Your task to perform on an android device: Open location settings Image 0: 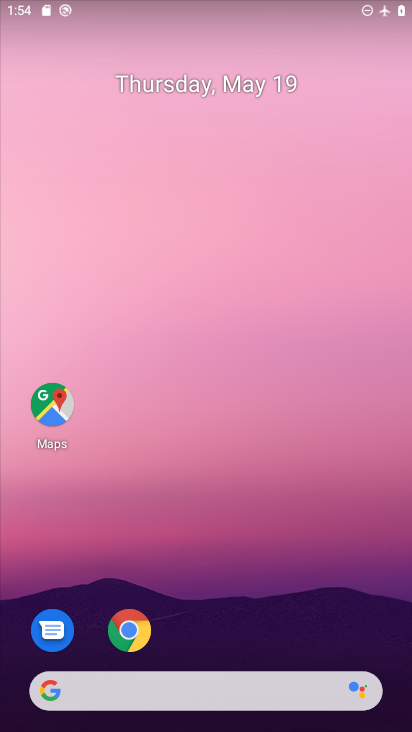
Step 0: drag from (200, 636) to (159, 103)
Your task to perform on an android device: Open location settings Image 1: 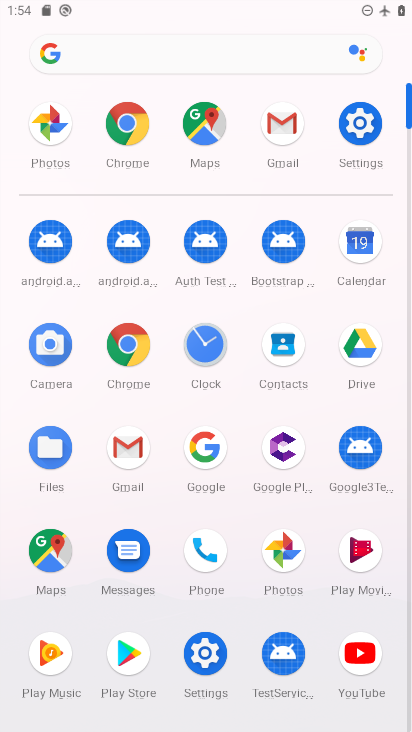
Step 1: click (352, 129)
Your task to perform on an android device: Open location settings Image 2: 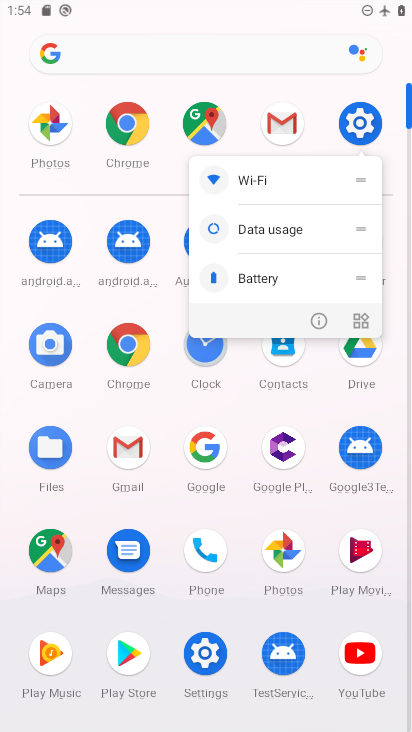
Step 2: click (360, 127)
Your task to perform on an android device: Open location settings Image 3: 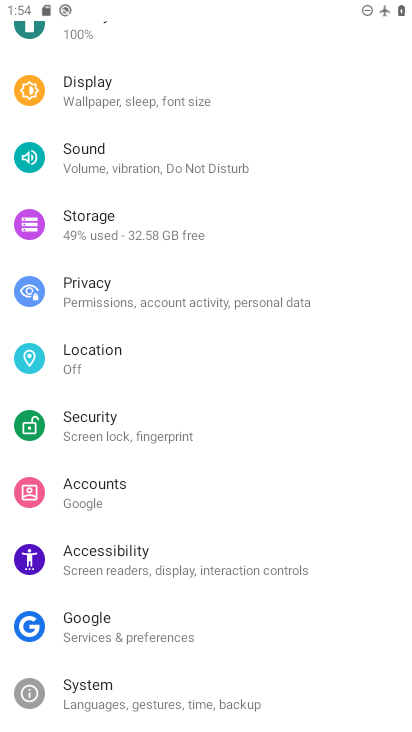
Step 3: click (102, 370)
Your task to perform on an android device: Open location settings Image 4: 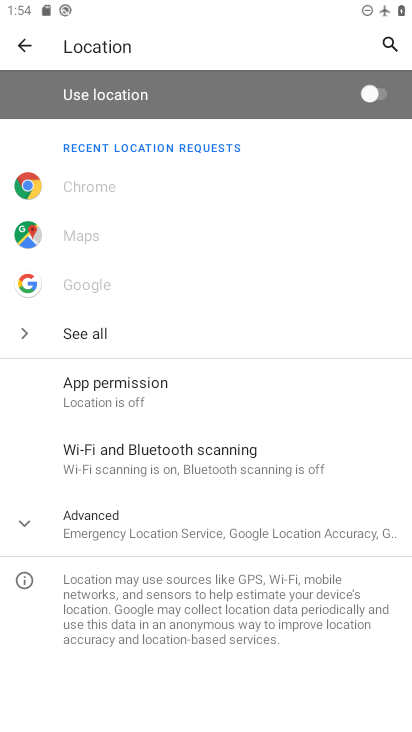
Step 4: click (184, 556)
Your task to perform on an android device: Open location settings Image 5: 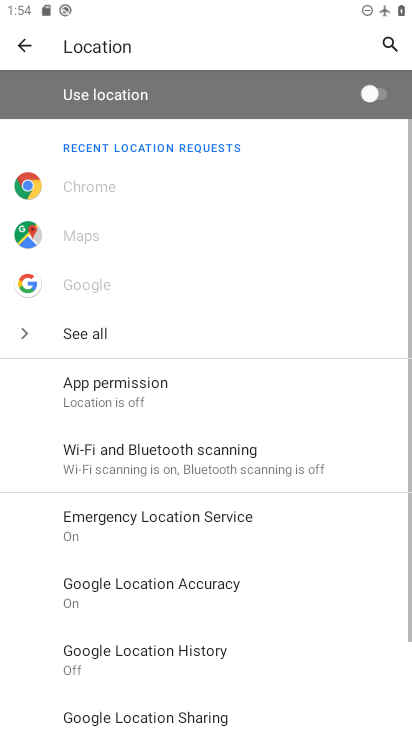
Step 5: task complete